Your task to perform on an android device: turn smart compose on in the gmail app Image 0: 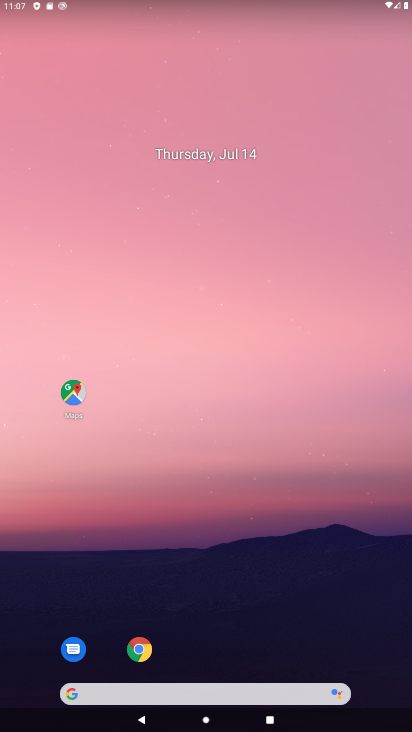
Step 0: drag from (377, 568) to (267, 98)
Your task to perform on an android device: turn smart compose on in the gmail app Image 1: 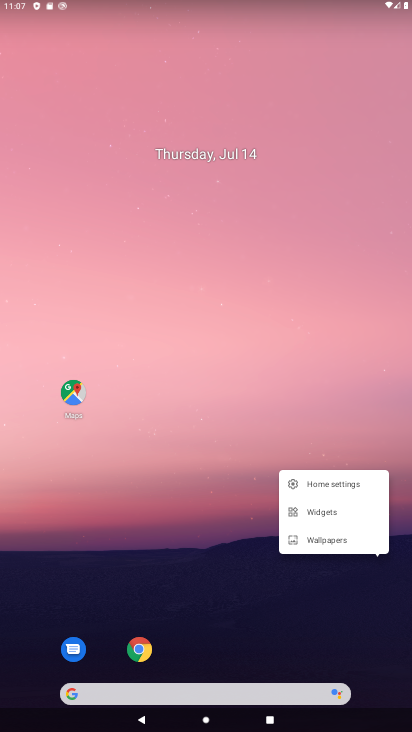
Step 1: drag from (275, 658) to (214, 55)
Your task to perform on an android device: turn smart compose on in the gmail app Image 2: 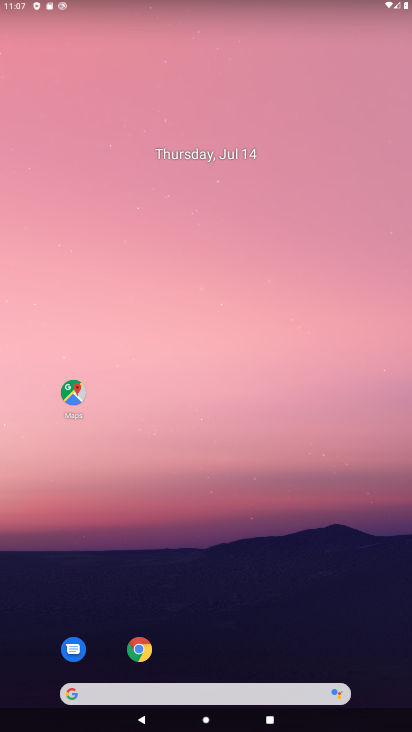
Step 2: drag from (394, 672) to (312, 148)
Your task to perform on an android device: turn smart compose on in the gmail app Image 3: 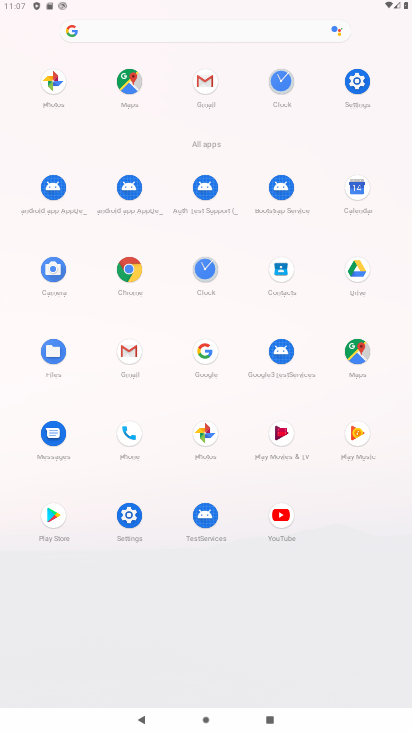
Step 3: click (209, 74)
Your task to perform on an android device: turn smart compose on in the gmail app Image 4: 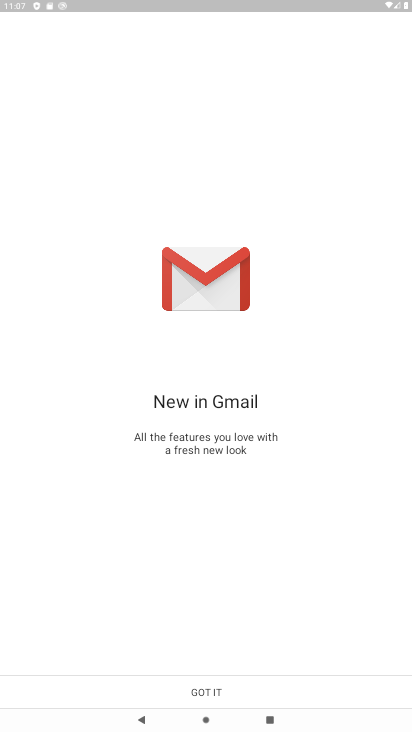
Step 4: click (205, 685)
Your task to perform on an android device: turn smart compose on in the gmail app Image 5: 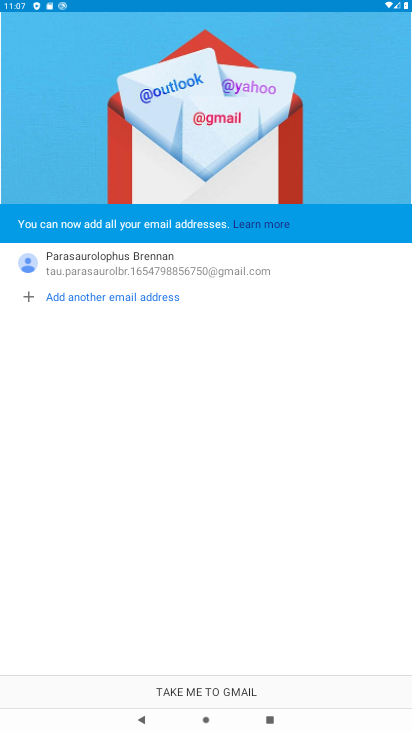
Step 5: click (205, 685)
Your task to perform on an android device: turn smart compose on in the gmail app Image 6: 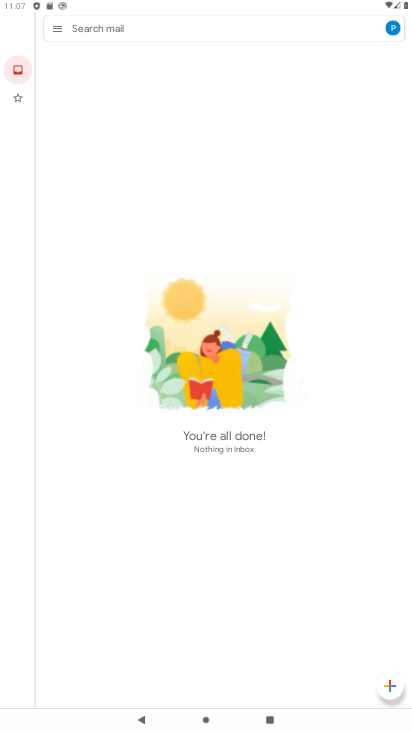
Step 6: click (55, 25)
Your task to perform on an android device: turn smart compose on in the gmail app Image 7: 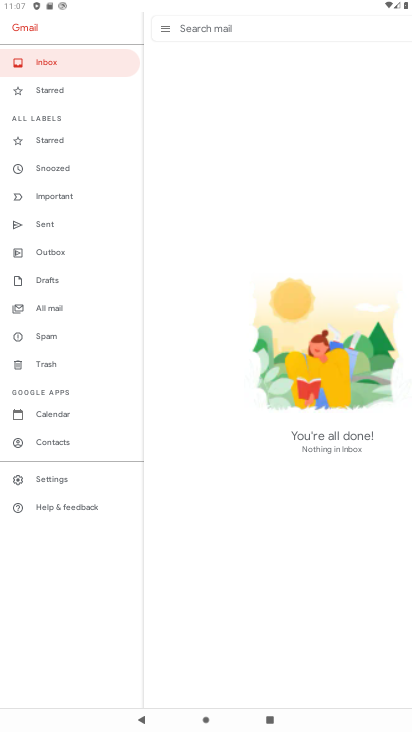
Step 7: click (55, 480)
Your task to perform on an android device: turn smart compose on in the gmail app Image 8: 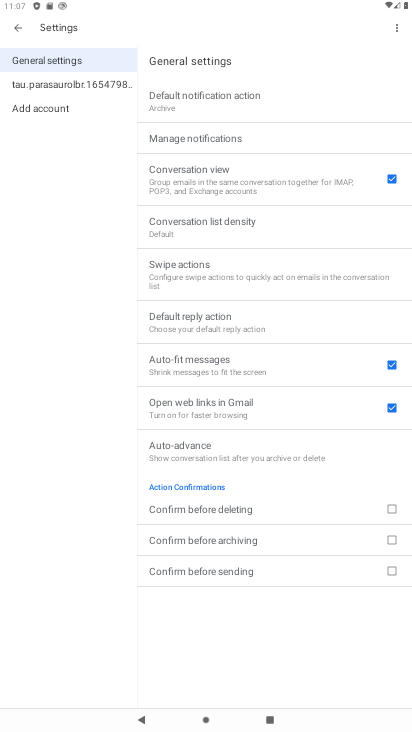
Step 8: click (75, 86)
Your task to perform on an android device: turn smart compose on in the gmail app Image 9: 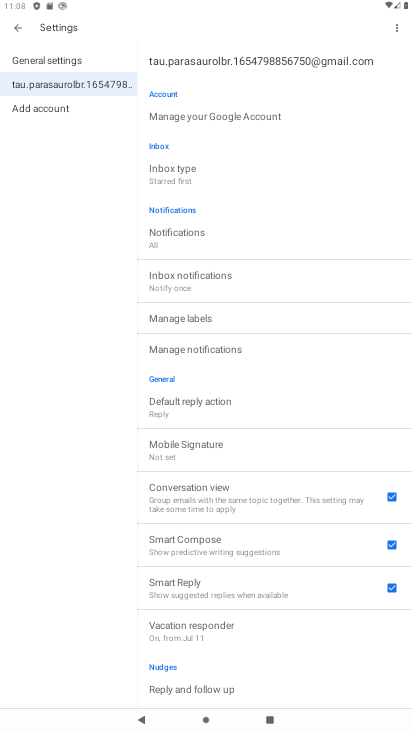
Step 9: task complete